Your task to perform on an android device: Go to location settings Image 0: 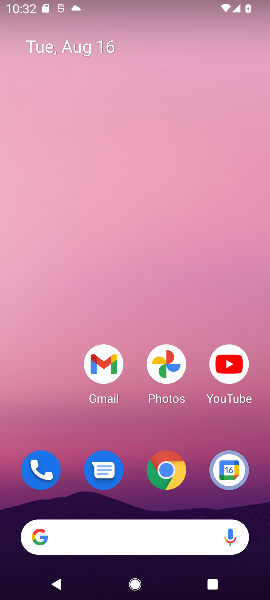
Step 0: drag from (68, 353) to (37, 30)
Your task to perform on an android device: Go to location settings Image 1: 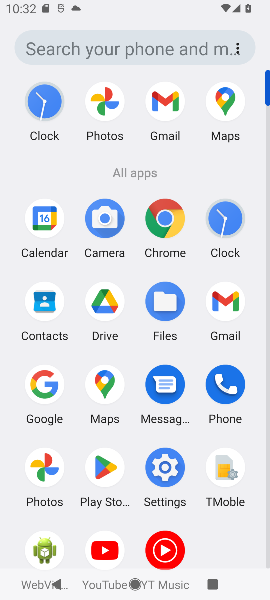
Step 1: click (170, 468)
Your task to perform on an android device: Go to location settings Image 2: 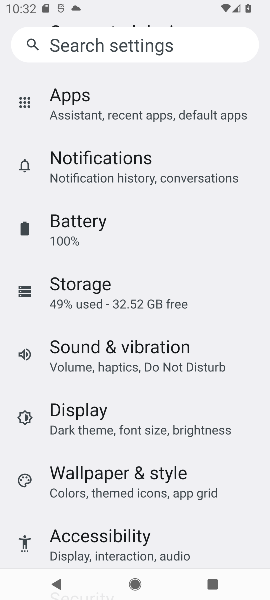
Step 2: drag from (123, 344) to (124, 62)
Your task to perform on an android device: Go to location settings Image 3: 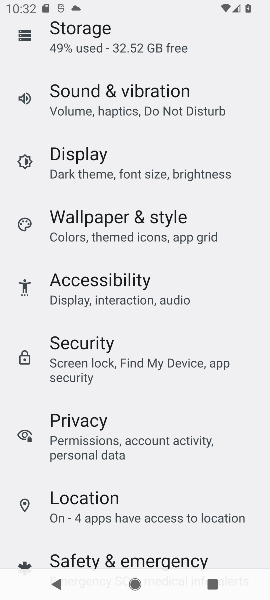
Step 3: click (124, 502)
Your task to perform on an android device: Go to location settings Image 4: 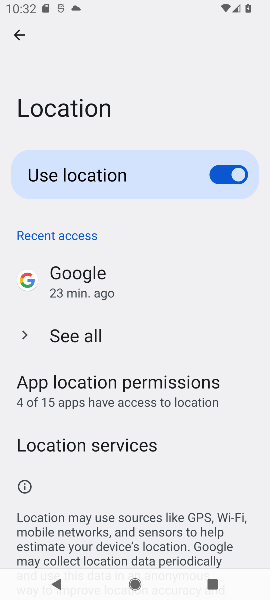
Step 4: task complete